Your task to perform on an android device: What's the weather? Image 0: 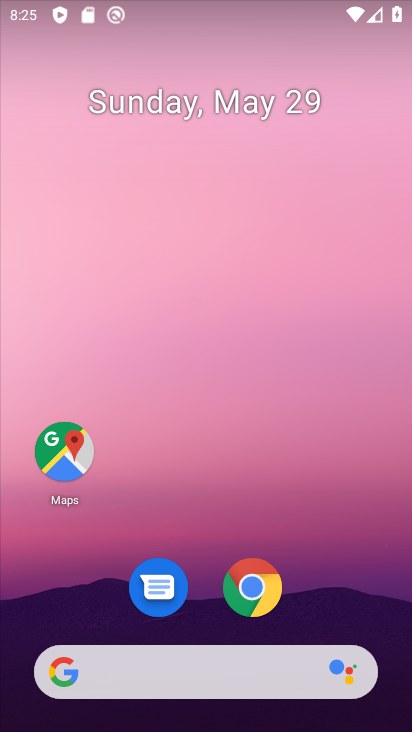
Step 0: click (236, 671)
Your task to perform on an android device: What's the weather? Image 1: 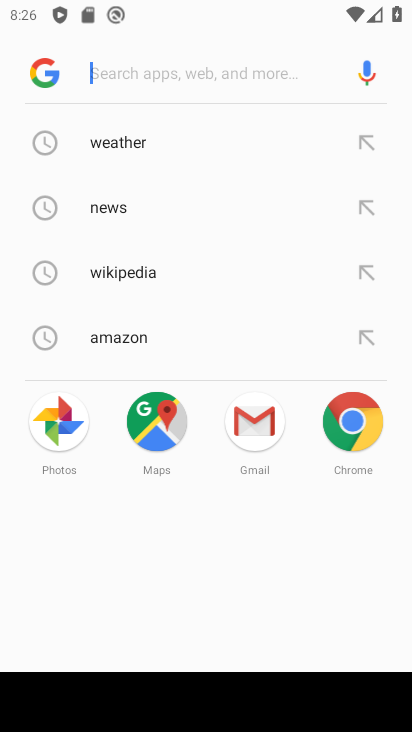
Step 1: click (168, 144)
Your task to perform on an android device: What's the weather? Image 2: 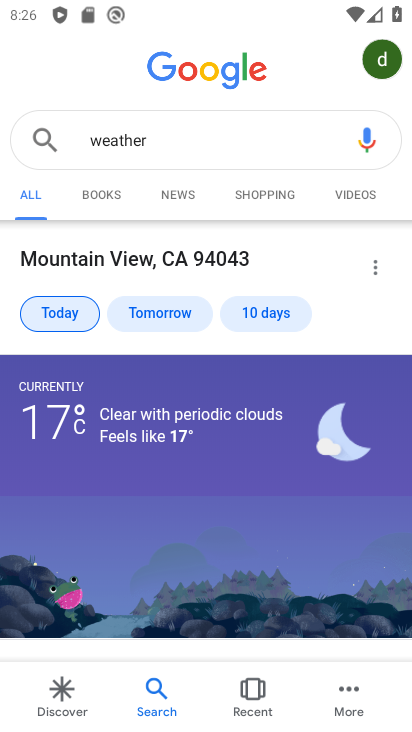
Step 2: task complete